Your task to perform on an android device: Open calendar and show me the third week of next month Image 0: 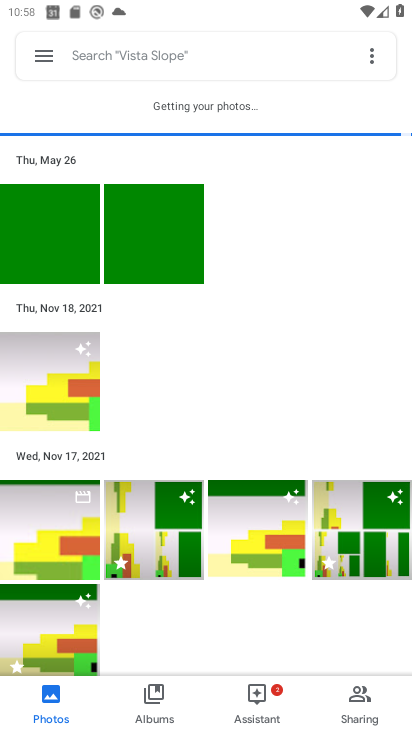
Step 0: press back button
Your task to perform on an android device: Open calendar and show me the third week of next month Image 1: 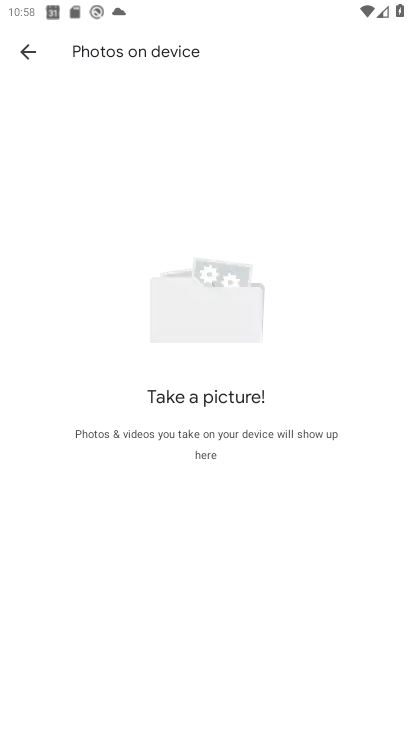
Step 1: press back button
Your task to perform on an android device: Open calendar and show me the third week of next month Image 2: 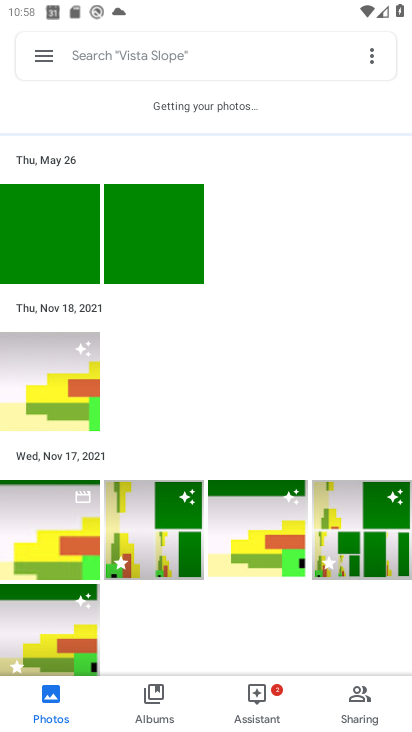
Step 2: press home button
Your task to perform on an android device: Open calendar and show me the third week of next month Image 3: 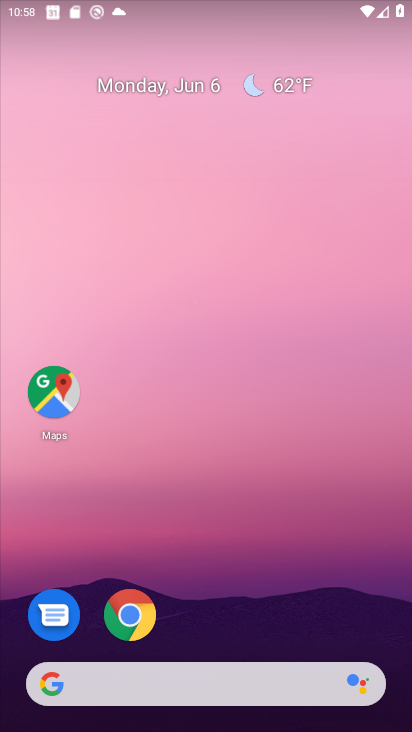
Step 3: drag from (233, 393) to (215, 263)
Your task to perform on an android device: Open calendar and show me the third week of next month Image 4: 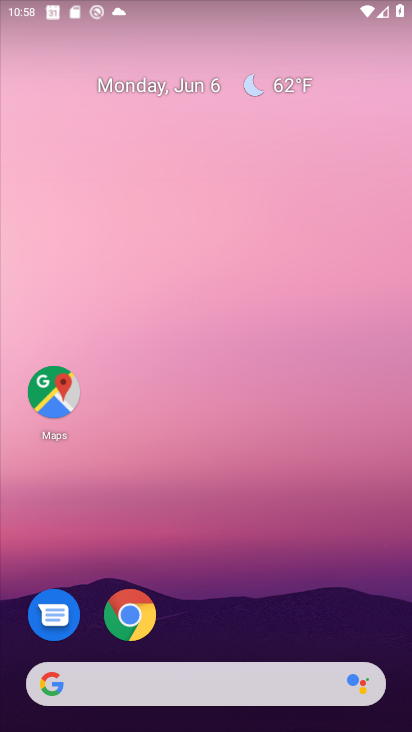
Step 4: drag from (281, 703) to (274, 110)
Your task to perform on an android device: Open calendar and show me the third week of next month Image 5: 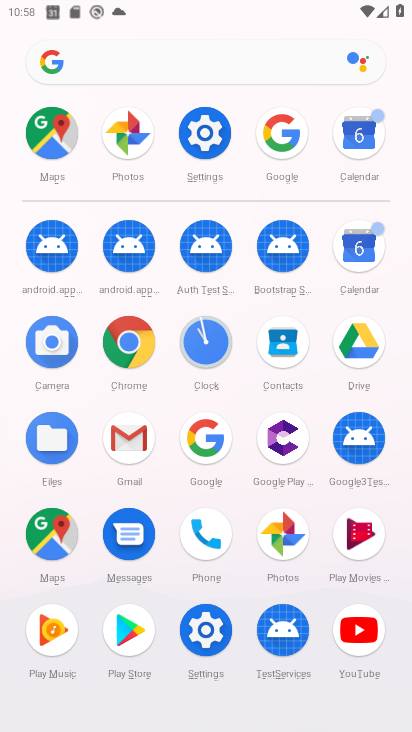
Step 5: click (357, 253)
Your task to perform on an android device: Open calendar and show me the third week of next month Image 6: 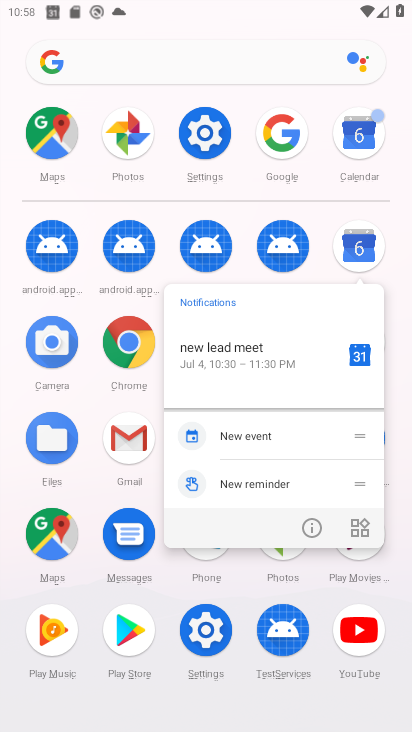
Step 6: click (358, 252)
Your task to perform on an android device: Open calendar and show me the third week of next month Image 7: 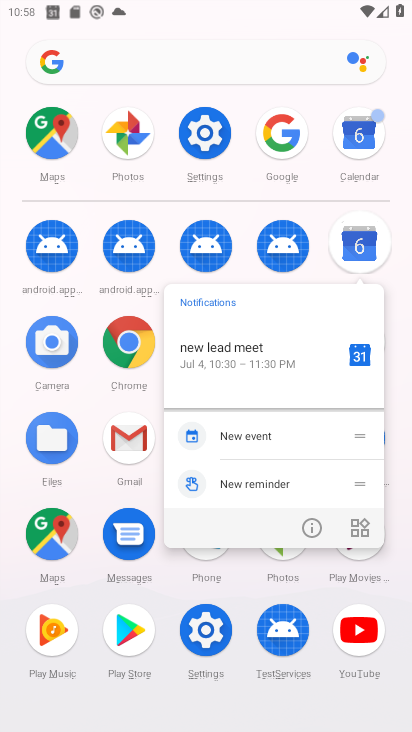
Step 7: click (359, 247)
Your task to perform on an android device: Open calendar and show me the third week of next month Image 8: 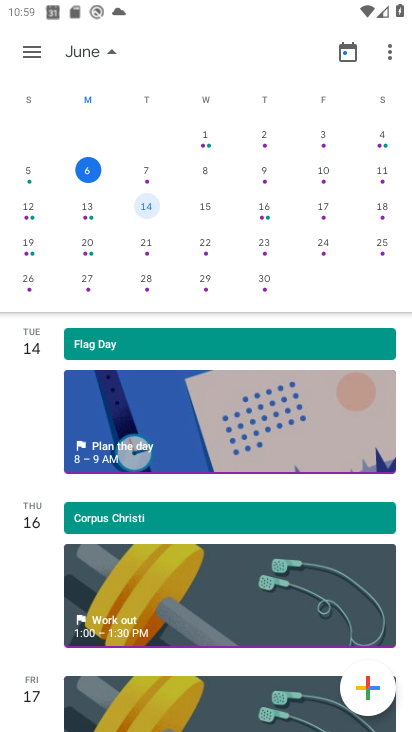
Step 8: click (203, 207)
Your task to perform on an android device: Open calendar and show me the third week of next month Image 9: 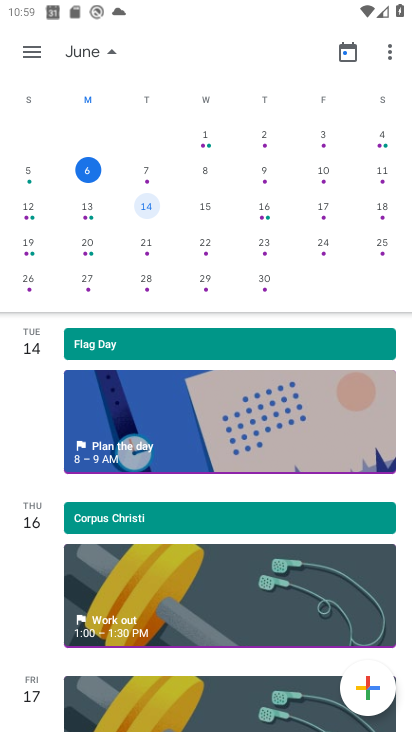
Step 9: click (209, 205)
Your task to perform on an android device: Open calendar and show me the third week of next month Image 10: 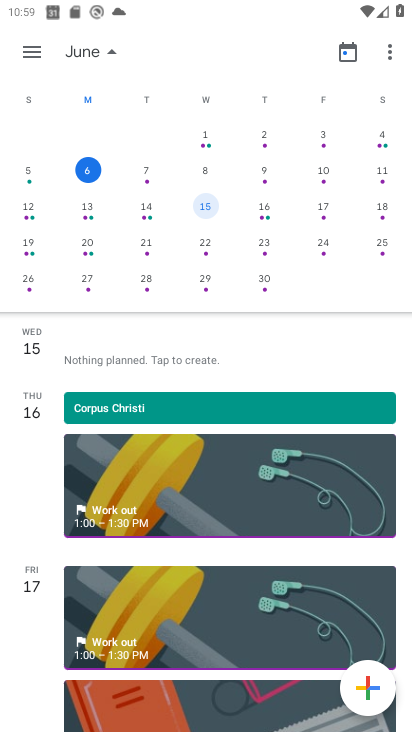
Step 10: click (209, 205)
Your task to perform on an android device: Open calendar and show me the third week of next month Image 11: 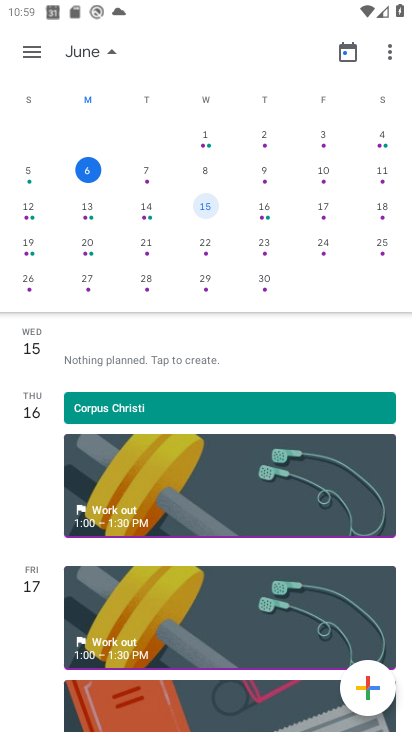
Step 11: click (209, 204)
Your task to perform on an android device: Open calendar and show me the third week of next month Image 12: 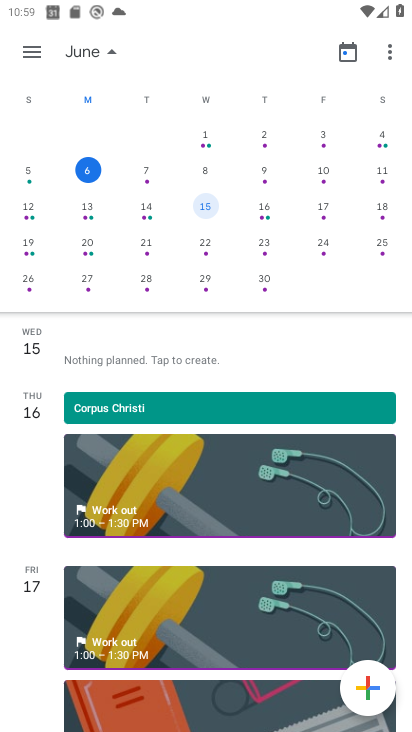
Step 12: click (203, 199)
Your task to perform on an android device: Open calendar and show me the third week of next month Image 13: 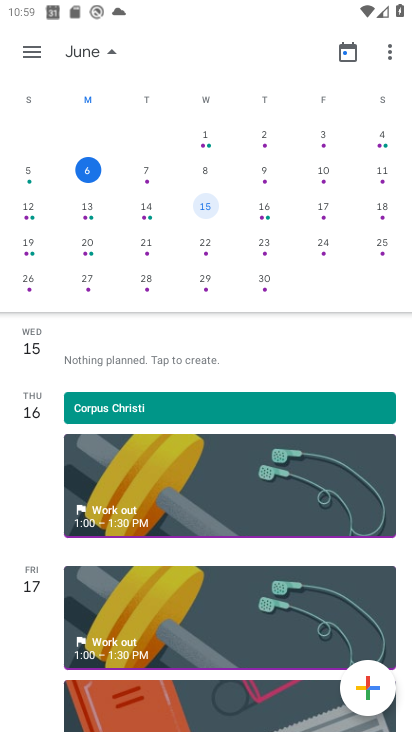
Step 13: click (203, 199)
Your task to perform on an android device: Open calendar and show me the third week of next month Image 14: 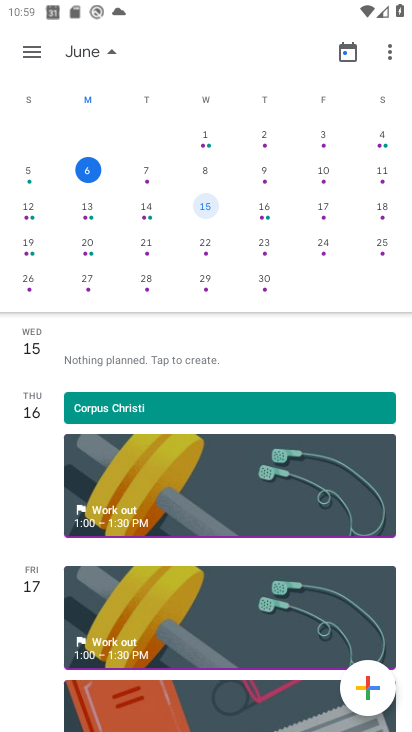
Step 14: task complete